Your task to perform on an android device: remove spam from my inbox in the gmail app Image 0: 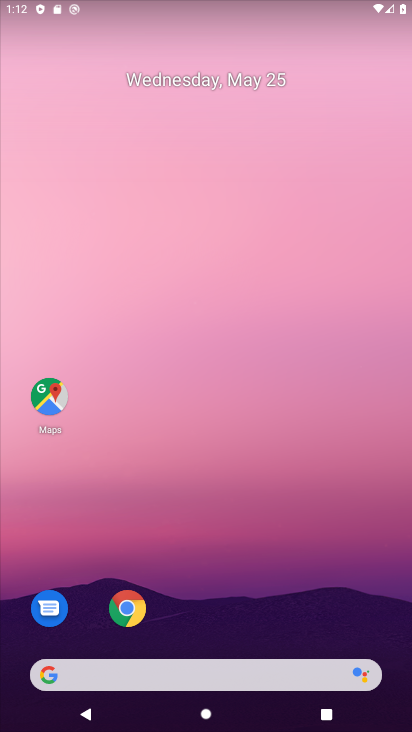
Step 0: drag from (294, 715) to (392, 131)
Your task to perform on an android device: remove spam from my inbox in the gmail app Image 1: 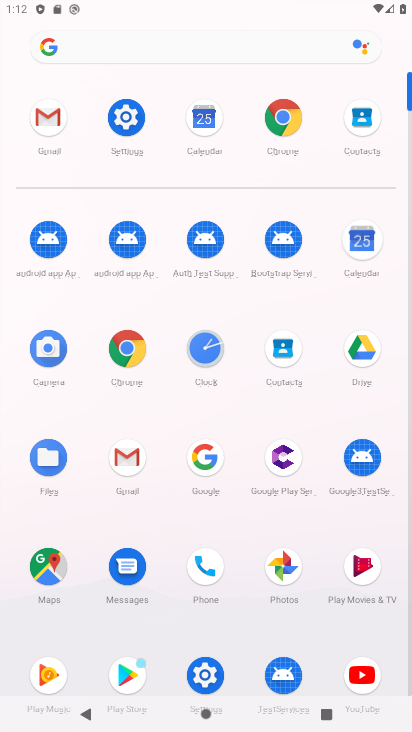
Step 1: click (138, 456)
Your task to perform on an android device: remove spam from my inbox in the gmail app Image 2: 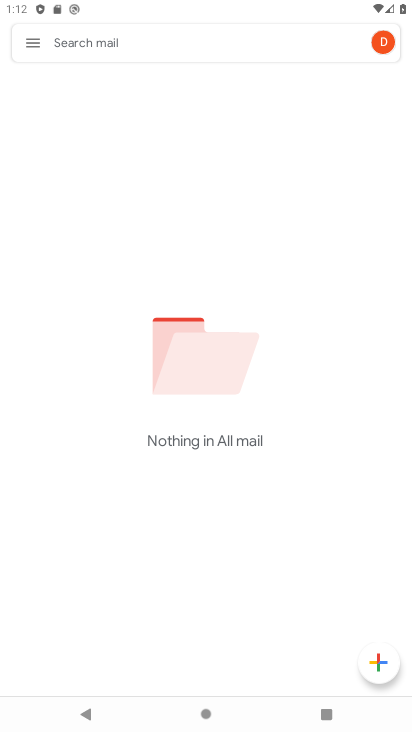
Step 2: click (30, 51)
Your task to perform on an android device: remove spam from my inbox in the gmail app Image 3: 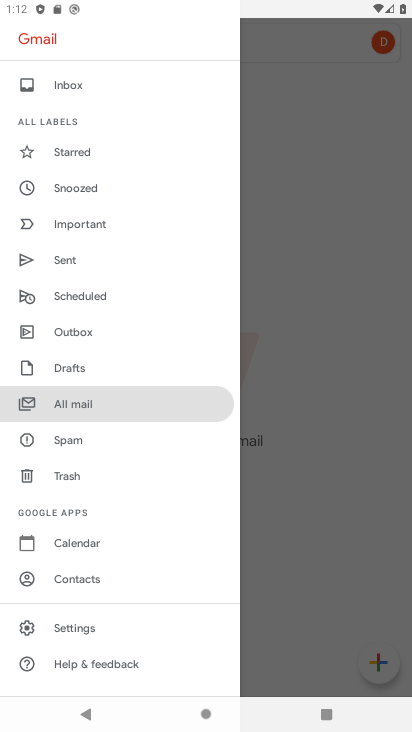
Step 3: click (85, 453)
Your task to perform on an android device: remove spam from my inbox in the gmail app Image 4: 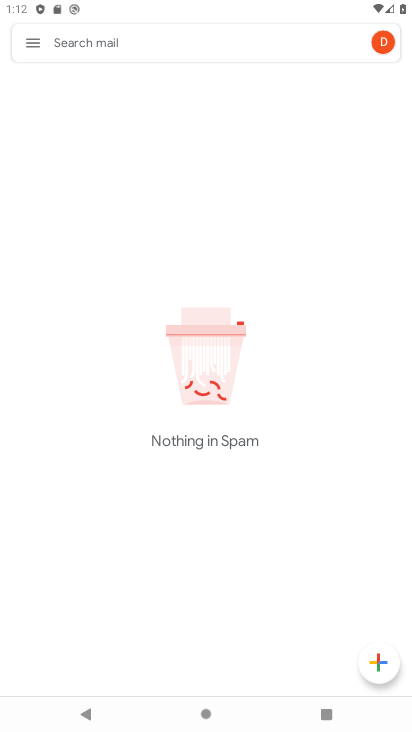
Step 4: task complete